Your task to perform on an android device: Go to Amazon Image 0: 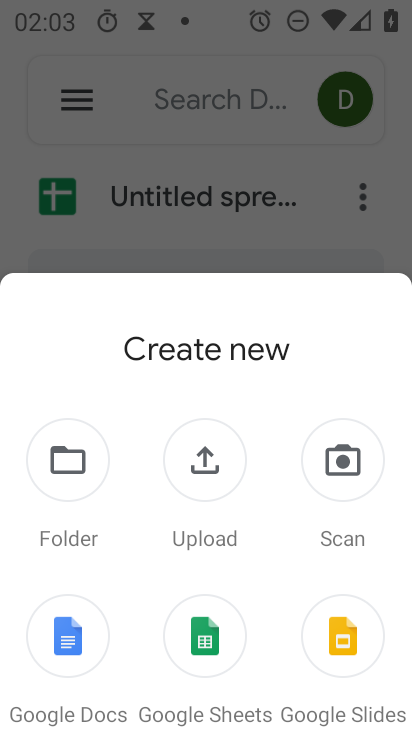
Step 0: press home button
Your task to perform on an android device: Go to Amazon Image 1: 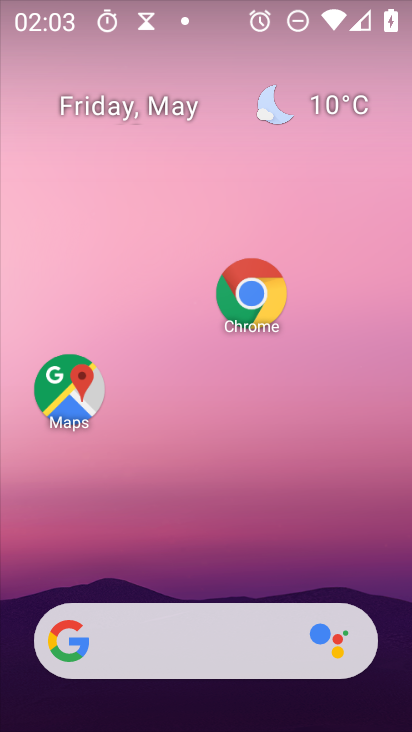
Step 1: drag from (191, 641) to (331, 44)
Your task to perform on an android device: Go to Amazon Image 2: 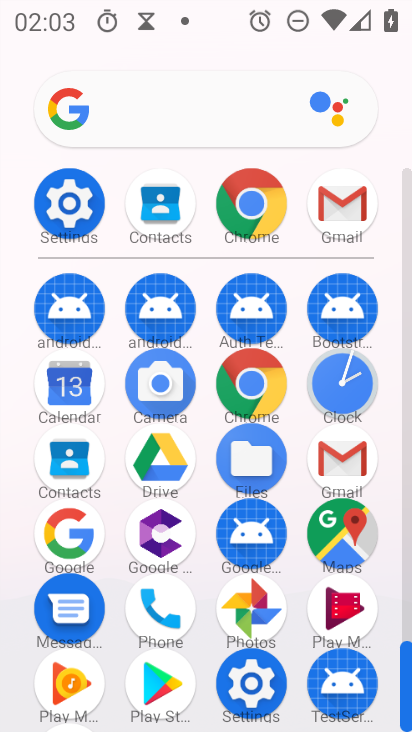
Step 2: click (249, 187)
Your task to perform on an android device: Go to Amazon Image 3: 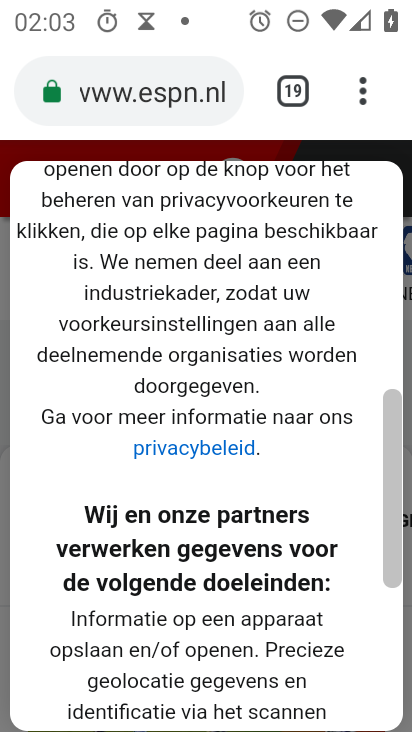
Step 3: drag from (359, 97) to (237, 181)
Your task to perform on an android device: Go to Amazon Image 4: 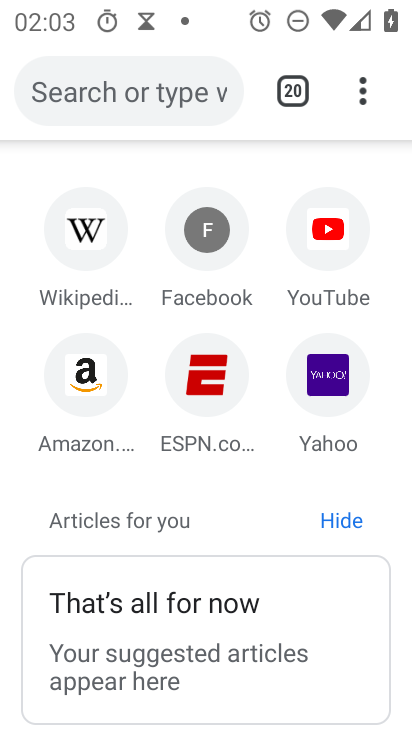
Step 4: click (77, 377)
Your task to perform on an android device: Go to Amazon Image 5: 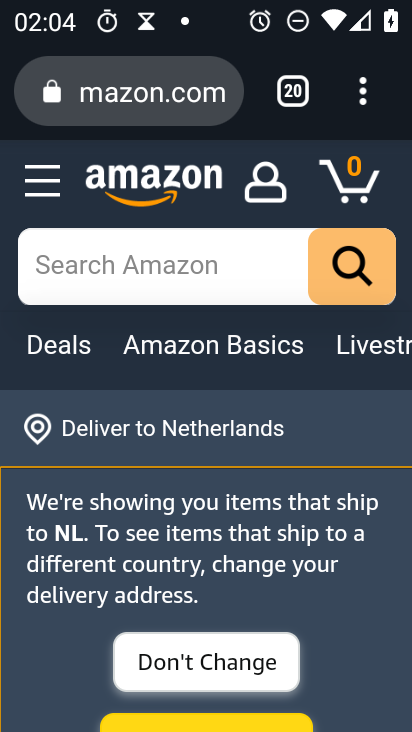
Step 5: task complete